Your task to perform on an android device: Open Chrome and go to the settings page Image 0: 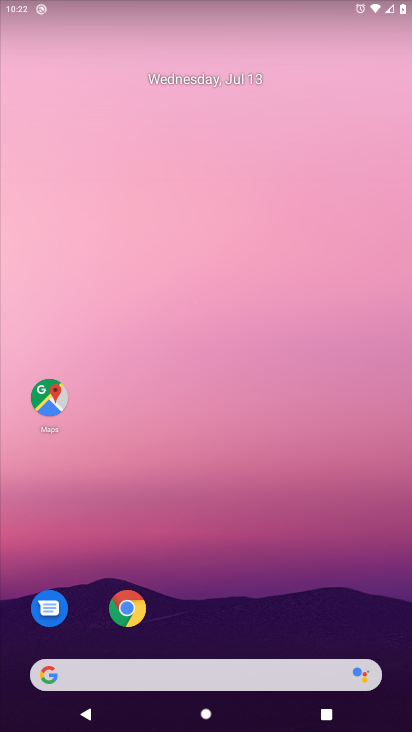
Step 0: click (136, 615)
Your task to perform on an android device: Open Chrome and go to the settings page Image 1: 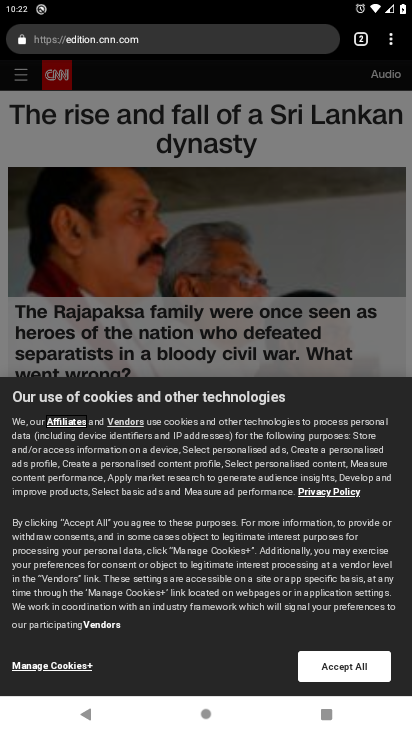
Step 1: click (397, 37)
Your task to perform on an android device: Open Chrome and go to the settings page Image 2: 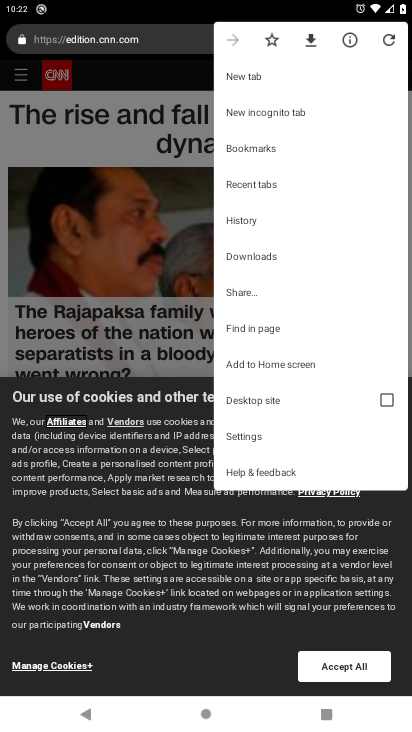
Step 2: click (249, 433)
Your task to perform on an android device: Open Chrome and go to the settings page Image 3: 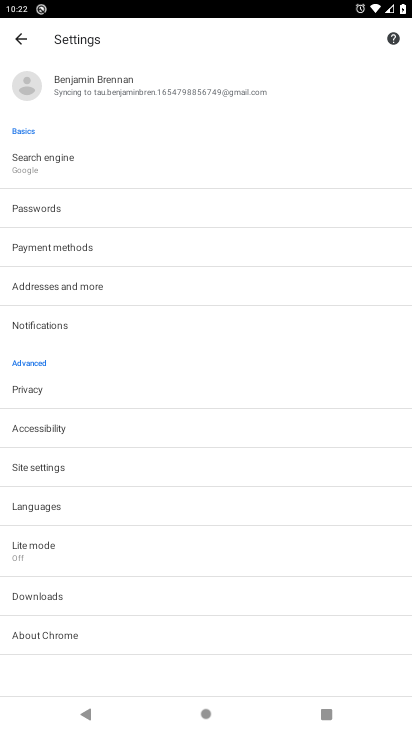
Step 3: task complete